Your task to perform on an android device: Go to notification settings Image 0: 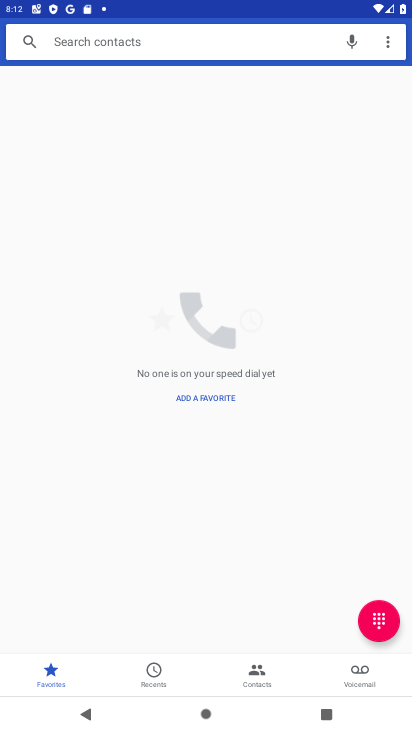
Step 0: press home button
Your task to perform on an android device: Go to notification settings Image 1: 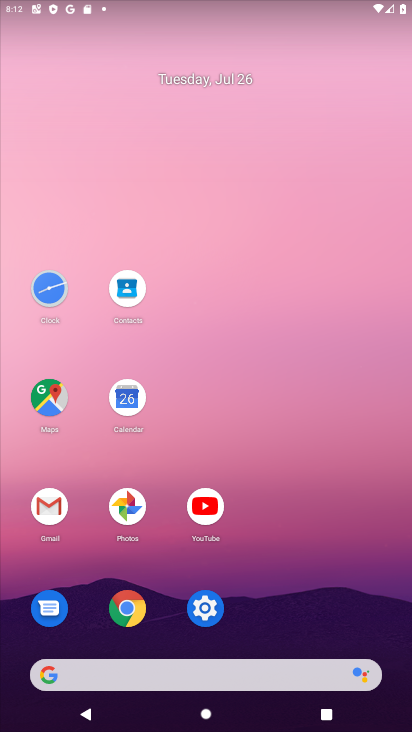
Step 1: click (206, 601)
Your task to perform on an android device: Go to notification settings Image 2: 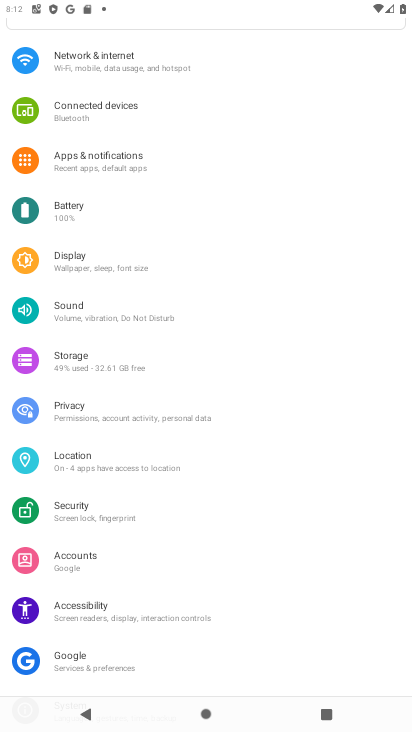
Step 2: click (99, 149)
Your task to perform on an android device: Go to notification settings Image 3: 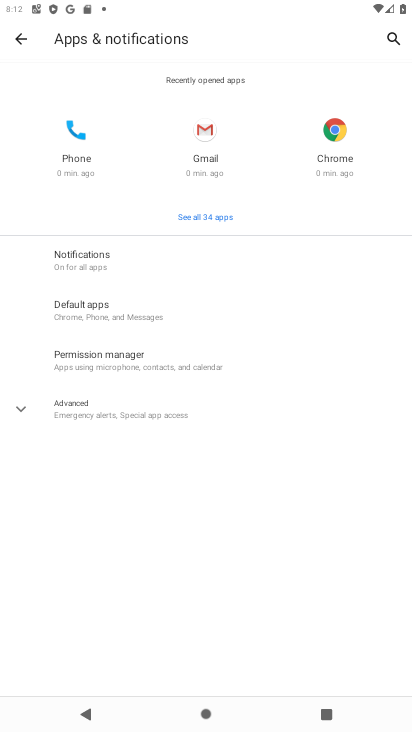
Step 3: task complete